Your task to perform on an android device: toggle location history Image 0: 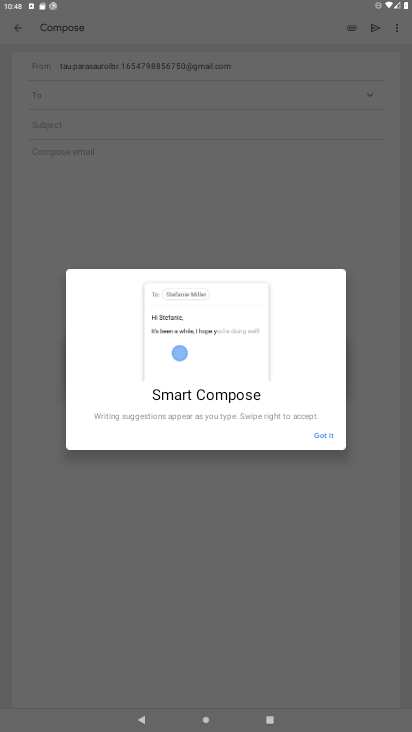
Step 0: press home button
Your task to perform on an android device: toggle location history Image 1: 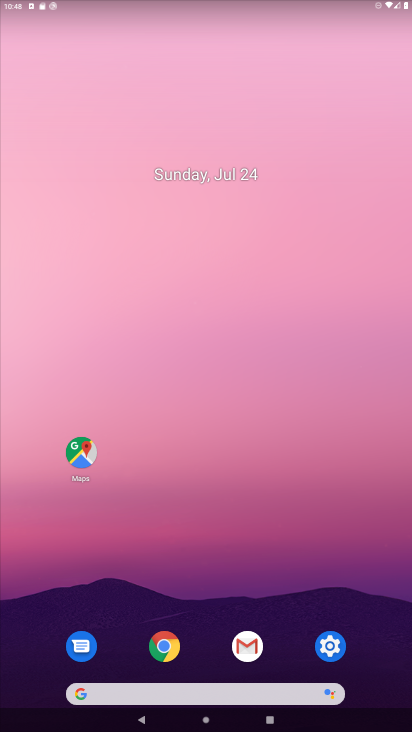
Step 1: click (325, 646)
Your task to perform on an android device: toggle location history Image 2: 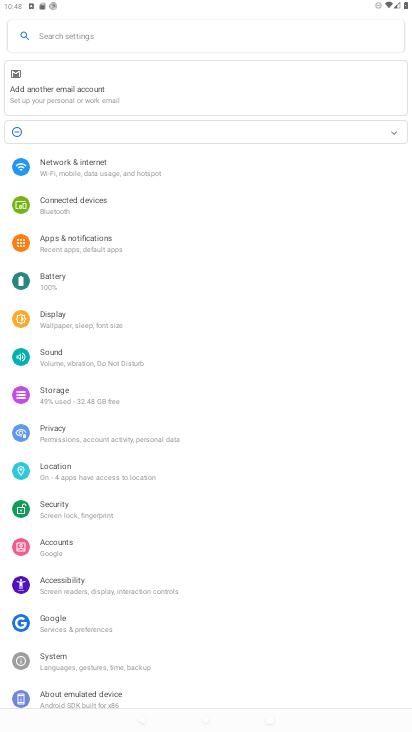
Step 2: click (81, 465)
Your task to perform on an android device: toggle location history Image 3: 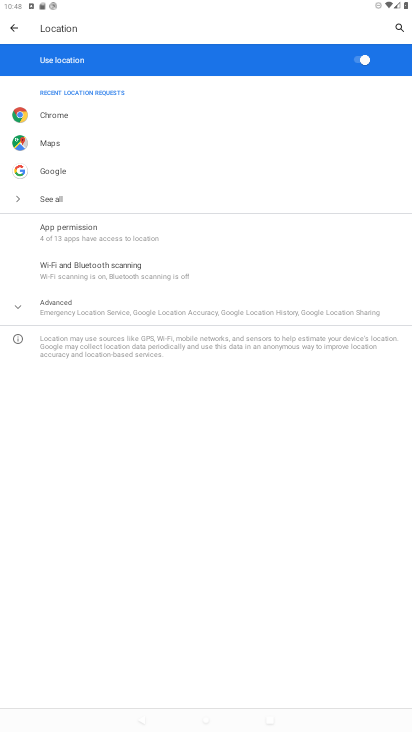
Step 3: click (33, 294)
Your task to perform on an android device: toggle location history Image 4: 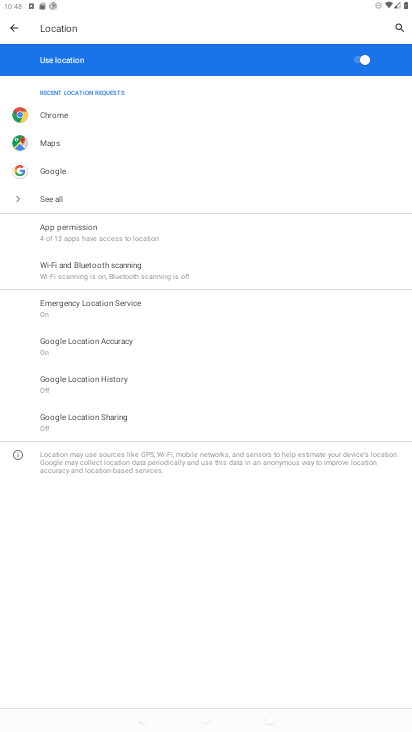
Step 4: click (96, 382)
Your task to perform on an android device: toggle location history Image 5: 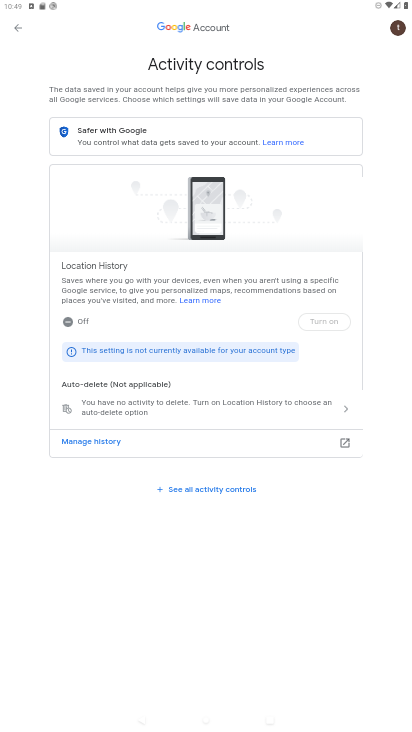
Step 5: task complete